Your task to perform on an android device: Open sound settings Image 0: 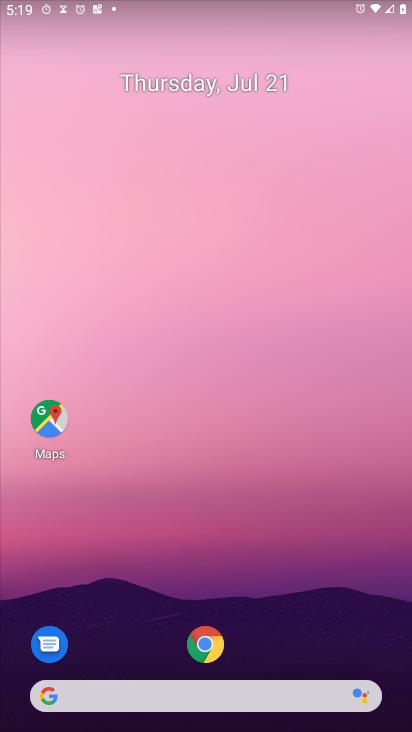
Step 0: press home button
Your task to perform on an android device: Open sound settings Image 1: 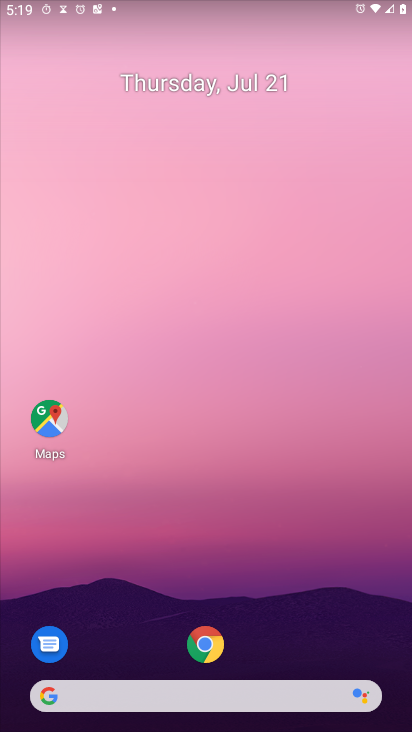
Step 1: drag from (334, 613) to (274, 64)
Your task to perform on an android device: Open sound settings Image 2: 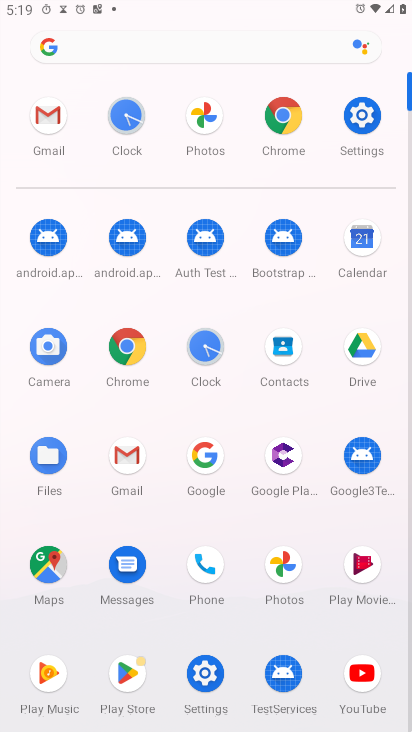
Step 2: click (352, 119)
Your task to perform on an android device: Open sound settings Image 3: 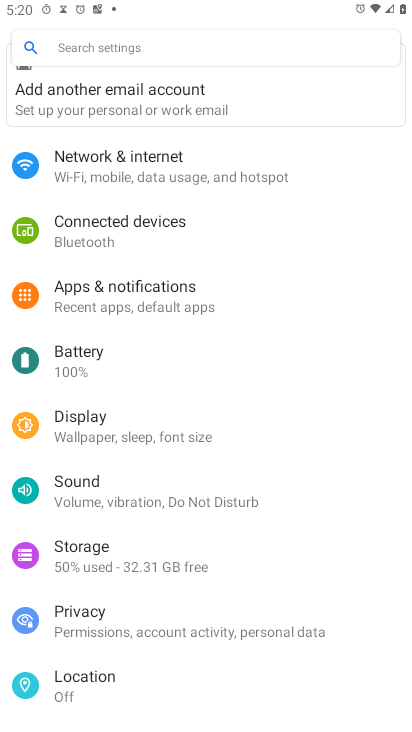
Step 3: click (152, 491)
Your task to perform on an android device: Open sound settings Image 4: 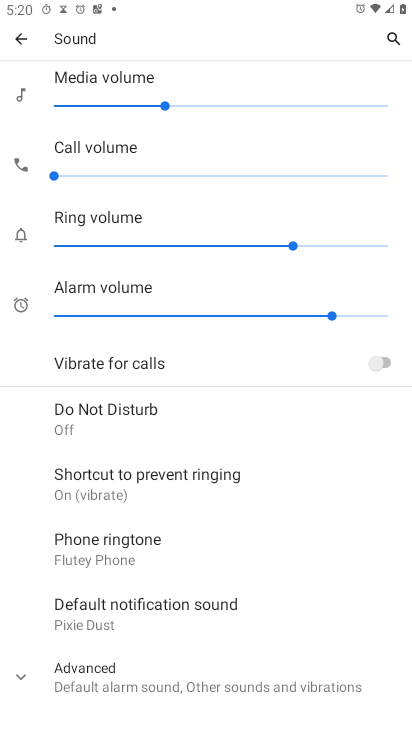
Step 4: task complete